Your task to perform on an android device: Do I have any events this weekend? Image 0: 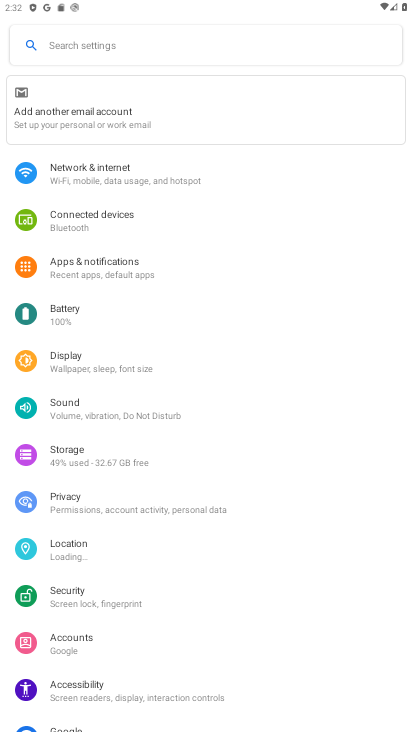
Step 0: press home button
Your task to perform on an android device: Do I have any events this weekend? Image 1: 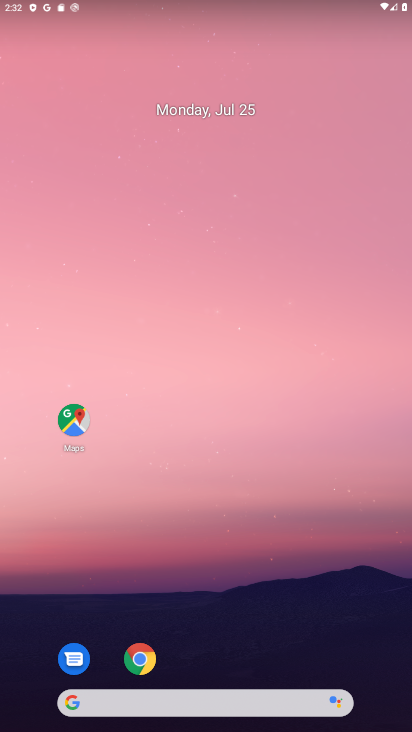
Step 1: drag from (237, 692) to (225, 51)
Your task to perform on an android device: Do I have any events this weekend? Image 2: 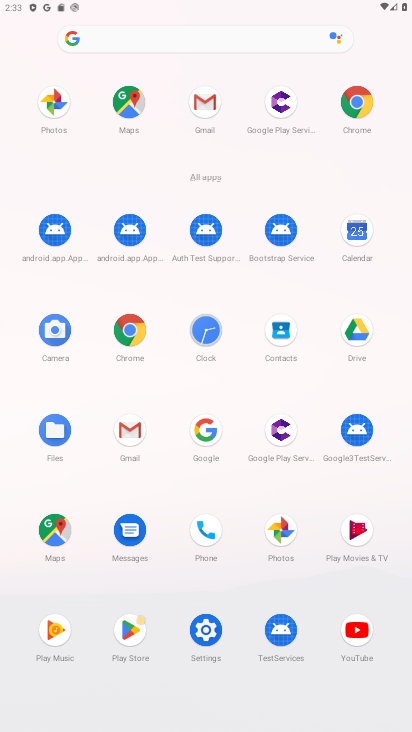
Step 2: click (353, 236)
Your task to perform on an android device: Do I have any events this weekend? Image 3: 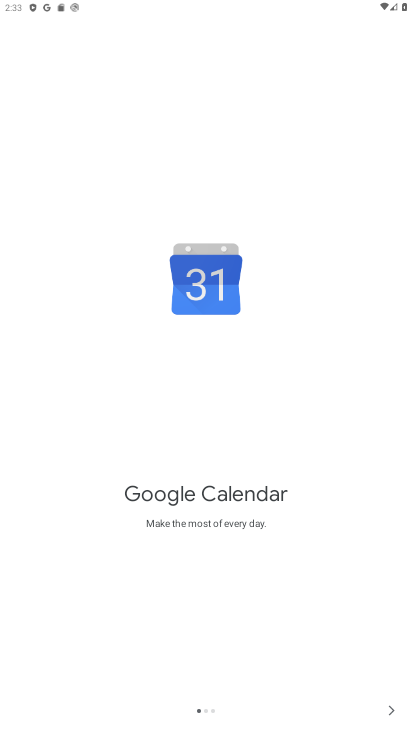
Step 3: click (396, 700)
Your task to perform on an android device: Do I have any events this weekend? Image 4: 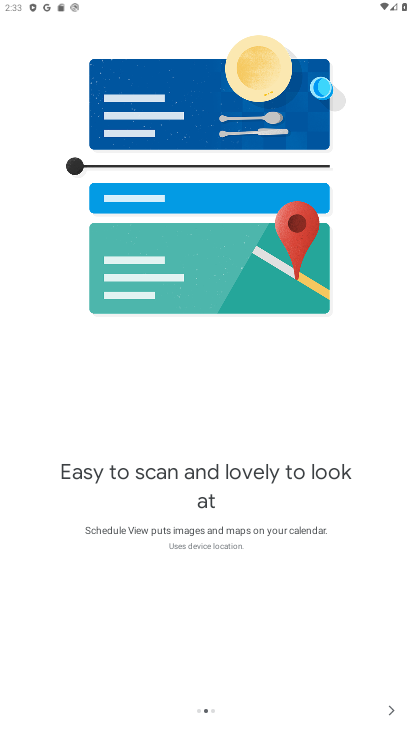
Step 4: click (393, 710)
Your task to perform on an android device: Do I have any events this weekend? Image 5: 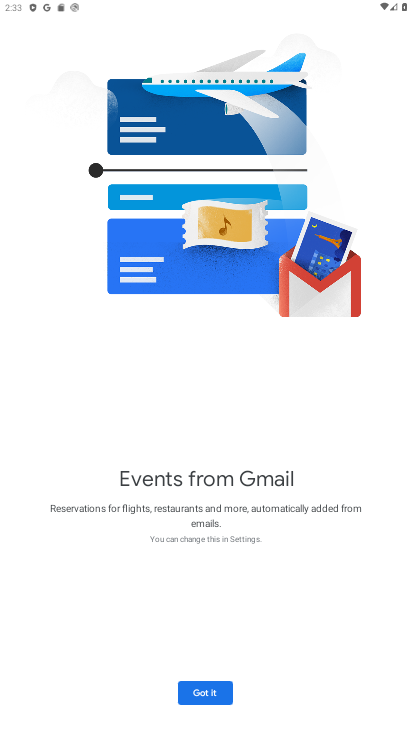
Step 5: click (217, 690)
Your task to perform on an android device: Do I have any events this weekend? Image 6: 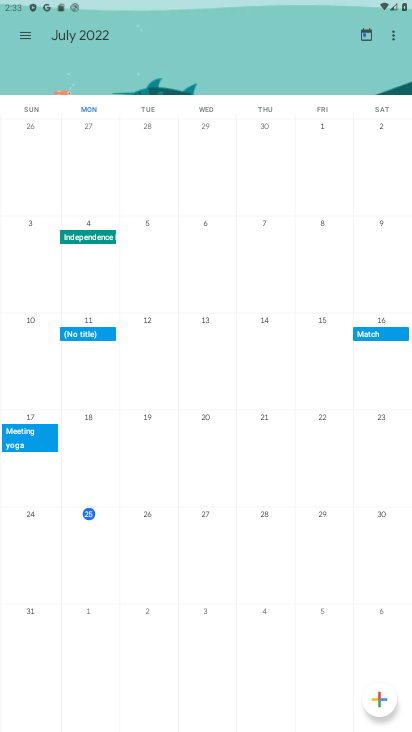
Step 6: task complete